Your task to perform on an android device: turn on improve location accuracy Image 0: 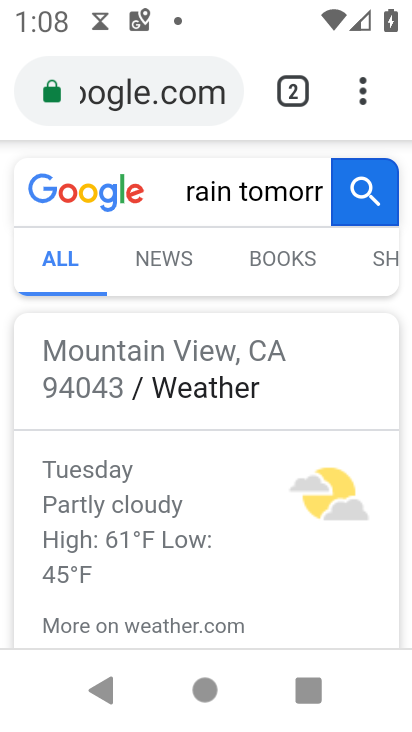
Step 0: press home button
Your task to perform on an android device: turn on improve location accuracy Image 1: 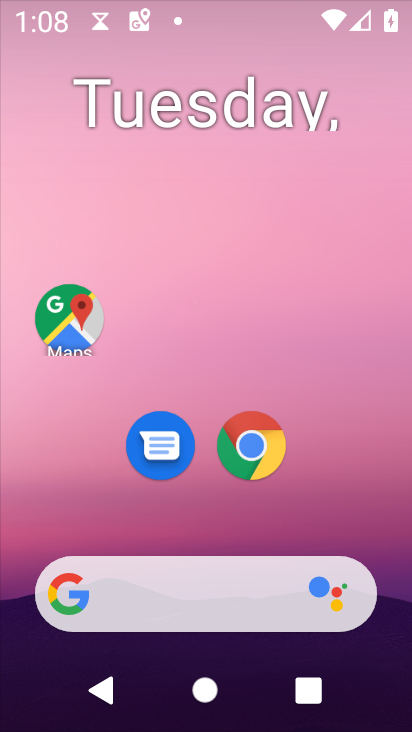
Step 1: drag from (298, 651) to (321, 0)
Your task to perform on an android device: turn on improve location accuracy Image 2: 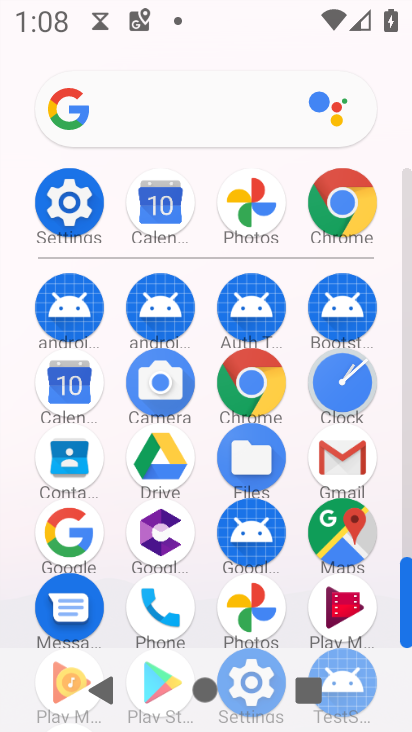
Step 2: drag from (299, 633) to (290, 126)
Your task to perform on an android device: turn on improve location accuracy Image 3: 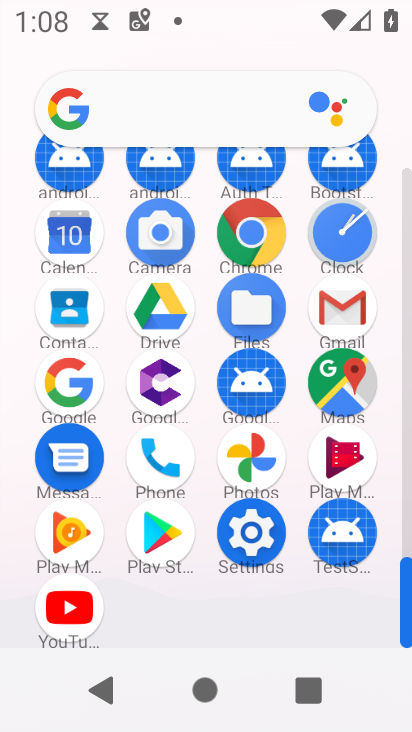
Step 3: click (250, 529)
Your task to perform on an android device: turn on improve location accuracy Image 4: 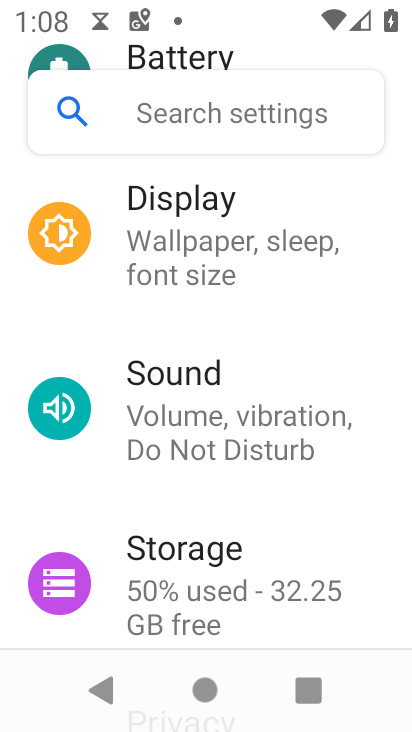
Step 4: drag from (277, 258) to (310, 145)
Your task to perform on an android device: turn on improve location accuracy Image 5: 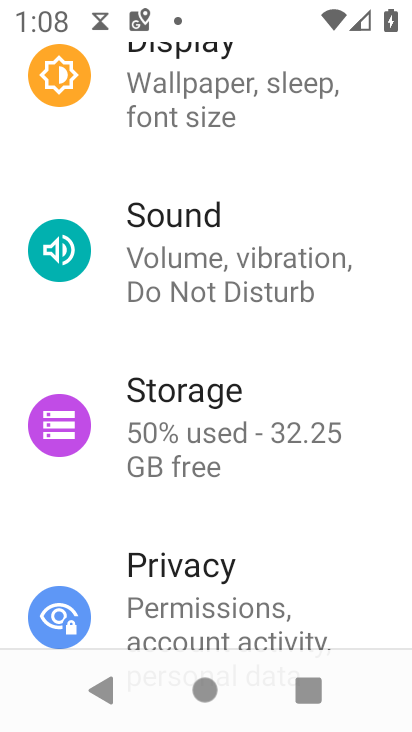
Step 5: drag from (281, 582) to (295, 174)
Your task to perform on an android device: turn on improve location accuracy Image 6: 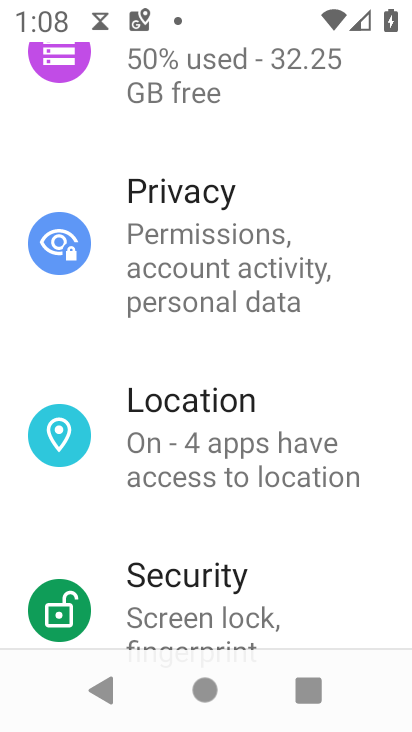
Step 6: click (264, 431)
Your task to perform on an android device: turn on improve location accuracy Image 7: 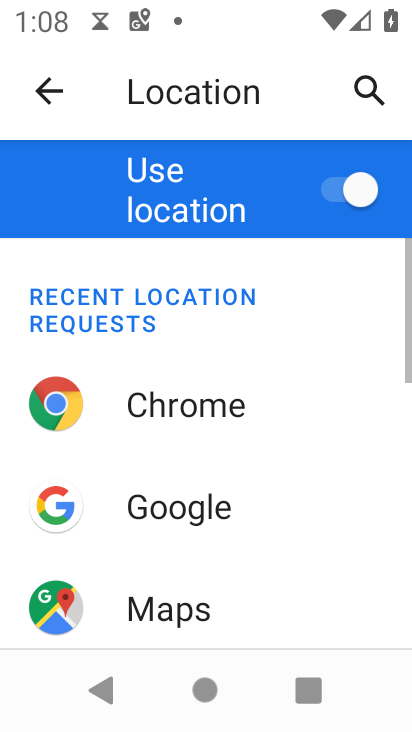
Step 7: drag from (288, 587) to (290, 8)
Your task to perform on an android device: turn on improve location accuracy Image 8: 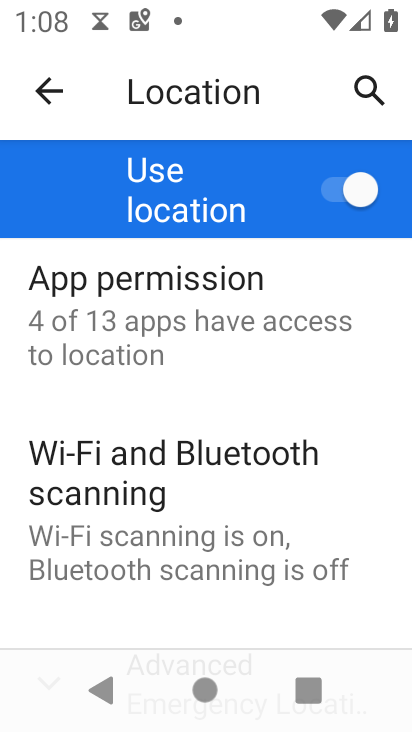
Step 8: drag from (342, 615) to (311, 180)
Your task to perform on an android device: turn on improve location accuracy Image 9: 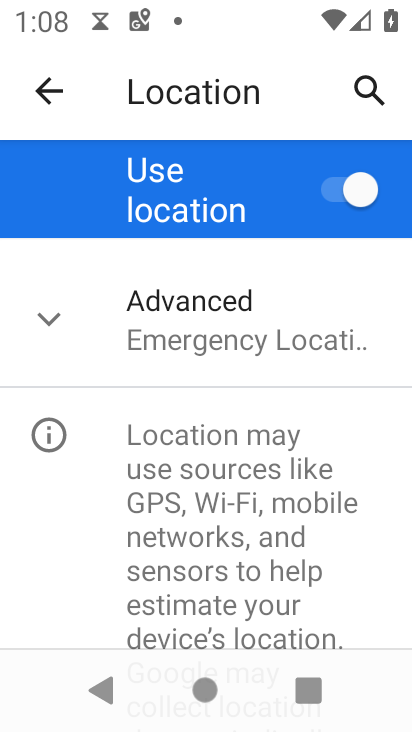
Step 9: click (270, 351)
Your task to perform on an android device: turn on improve location accuracy Image 10: 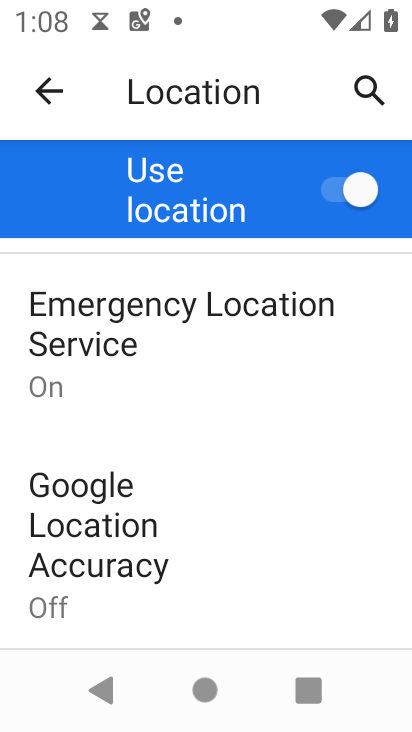
Step 10: click (228, 571)
Your task to perform on an android device: turn on improve location accuracy Image 11: 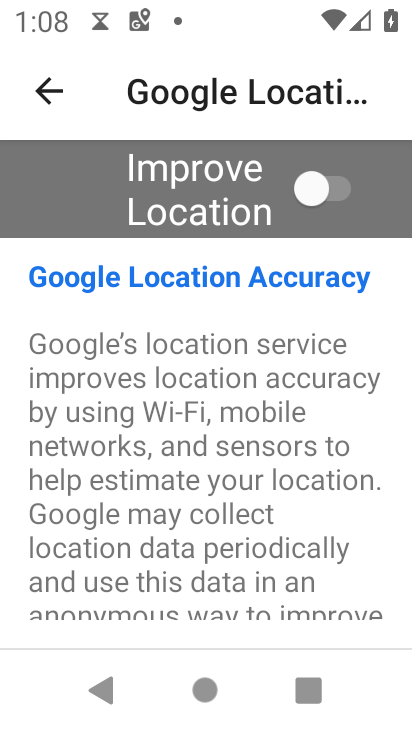
Step 11: click (333, 191)
Your task to perform on an android device: turn on improve location accuracy Image 12: 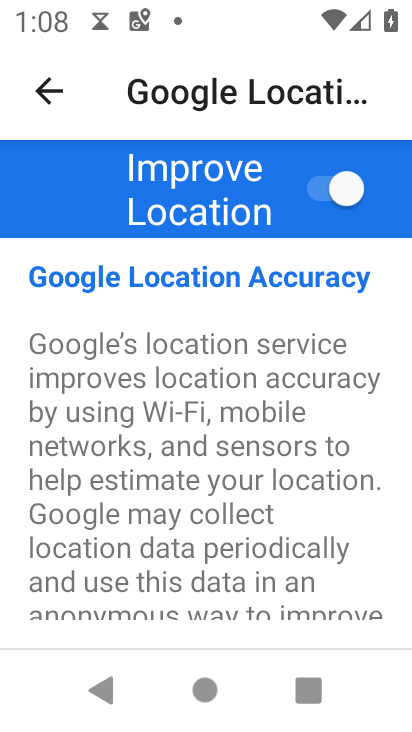
Step 12: task complete